Your task to perform on an android device: What's the weather today? Image 0: 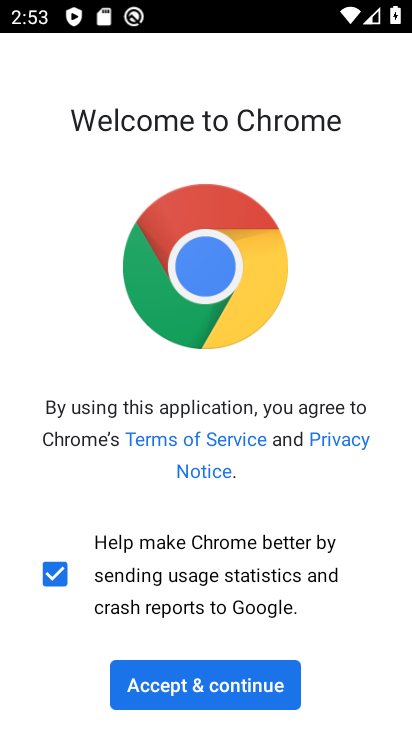
Step 0: press home button
Your task to perform on an android device: What's the weather today? Image 1: 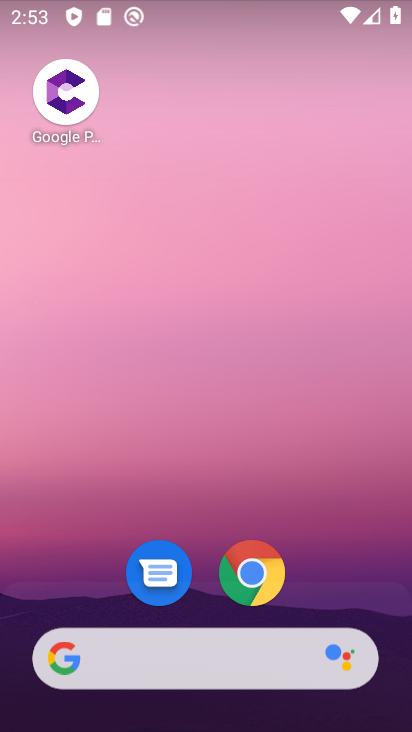
Step 1: click (171, 653)
Your task to perform on an android device: What's the weather today? Image 2: 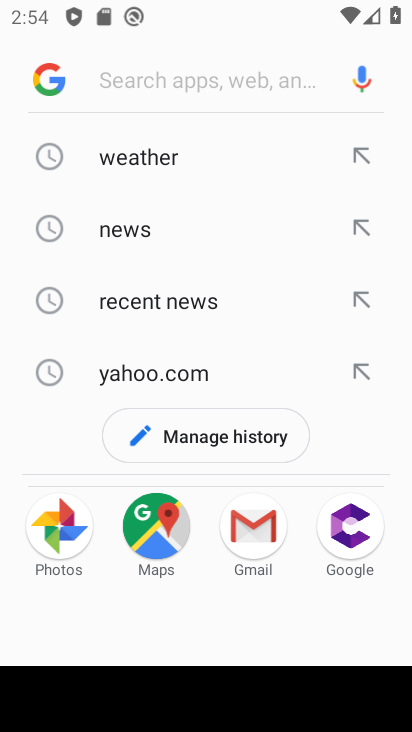
Step 2: type "what's the weather today"
Your task to perform on an android device: What's the weather today? Image 3: 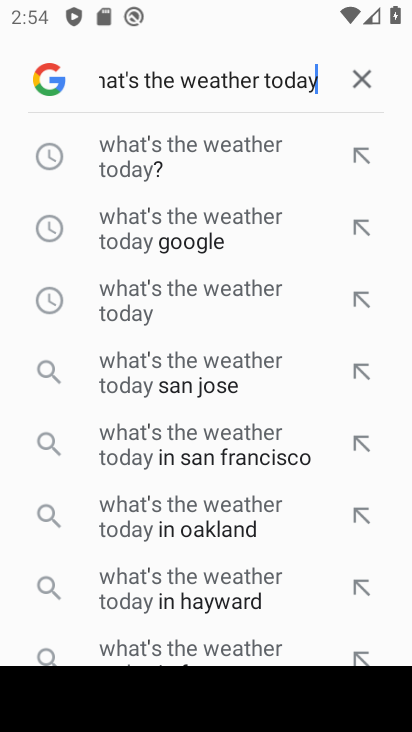
Step 3: click (142, 173)
Your task to perform on an android device: What's the weather today? Image 4: 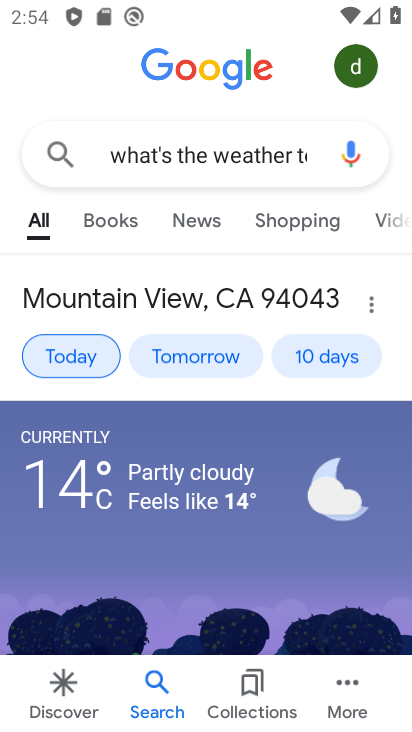
Step 4: task complete